Your task to perform on an android device: Open Google Image 0: 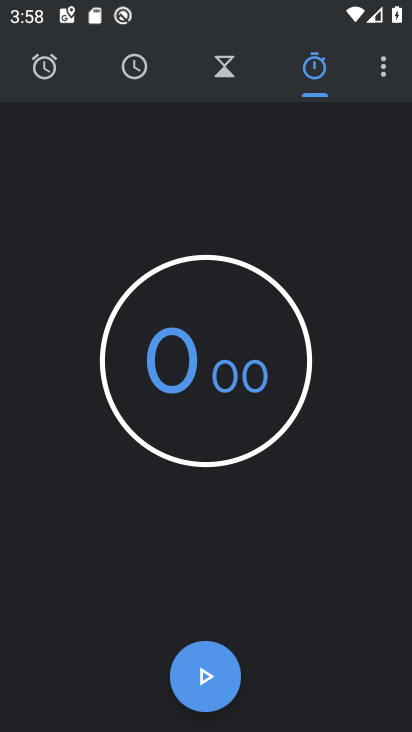
Step 0: task complete